Your task to perform on an android device: What's the latest news in astronomy? Image 0: 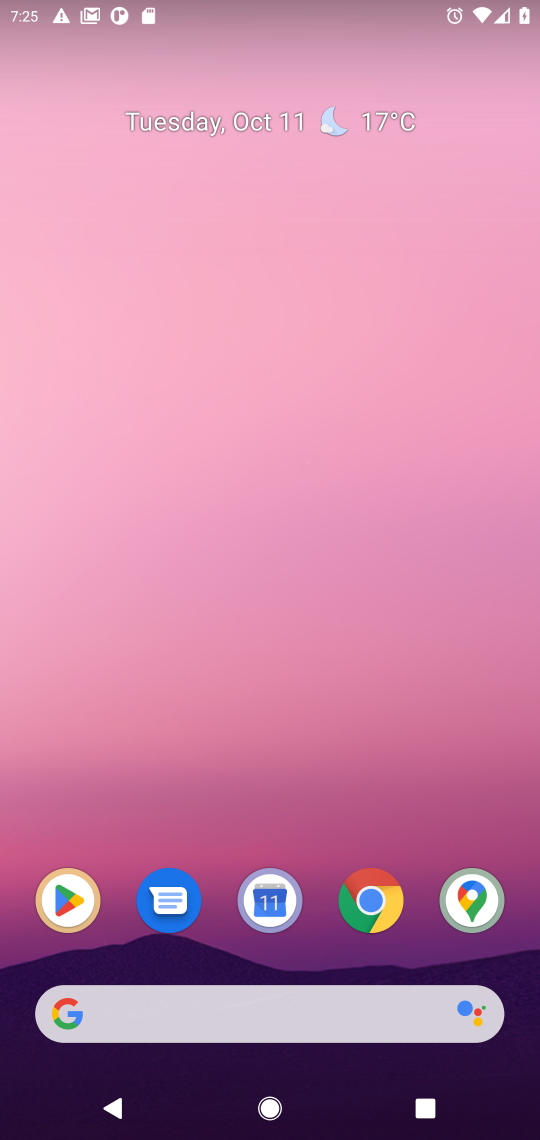
Step 0: click (360, 892)
Your task to perform on an android device: What's the latest news in astronomy? Image 1: 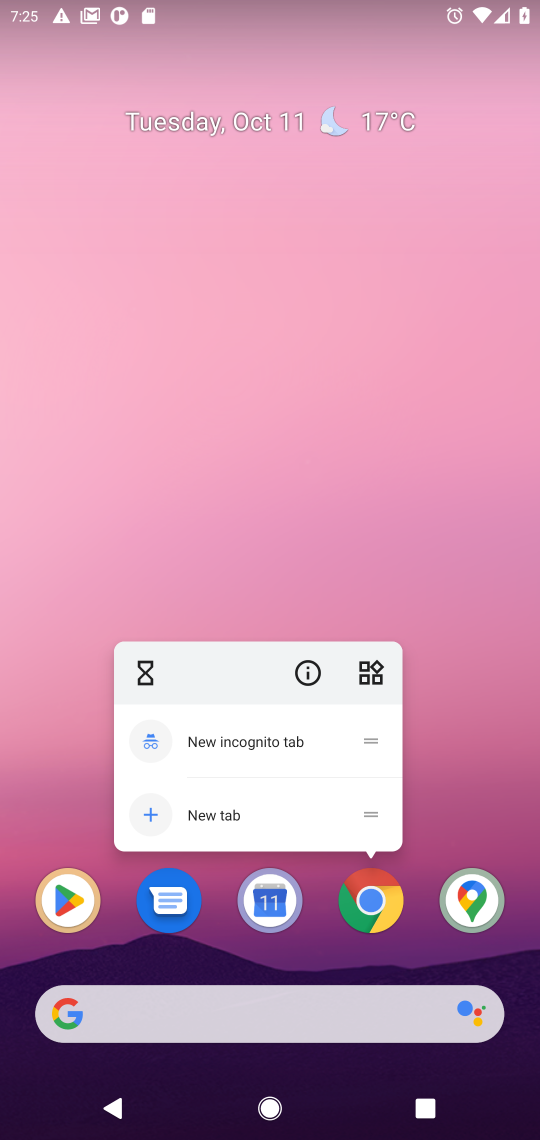
Step 1: click (359, 912)
Your task to perform on an android device: What's the latest news in astronomy? Image 2: 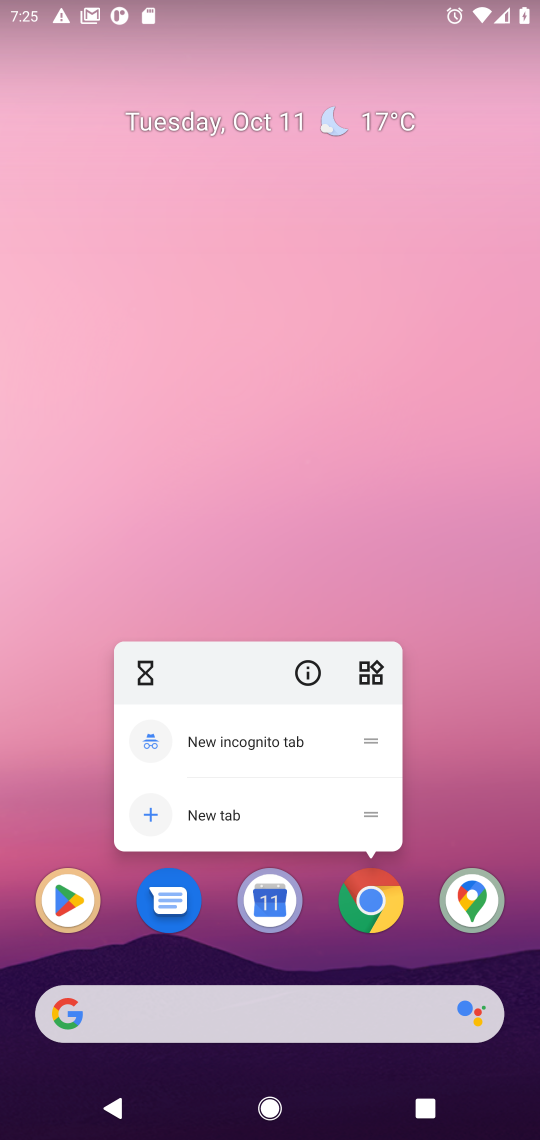
Step 2: click (371, 906)
Your task to perform on an android device: What's the latest news in astronomy? Image 3: 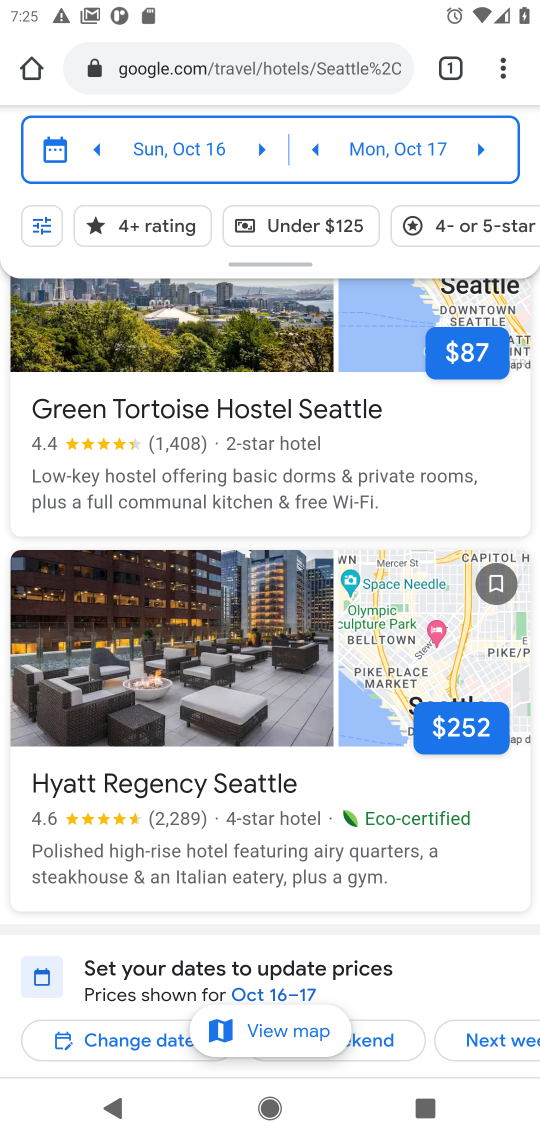
Step 3: click (277, 68)
Your task to perform on an android device: What's the latest news in astronomy? Image 4: 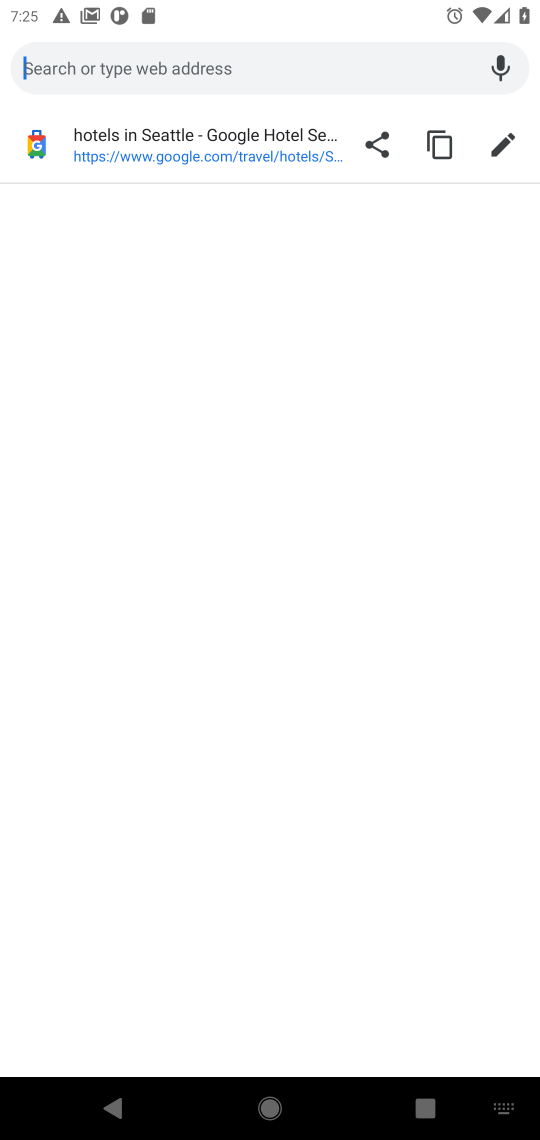
Step 4: type "news in astronomy"
Your task to perform on an android device: What's the latest news in astronomy? Image 5: 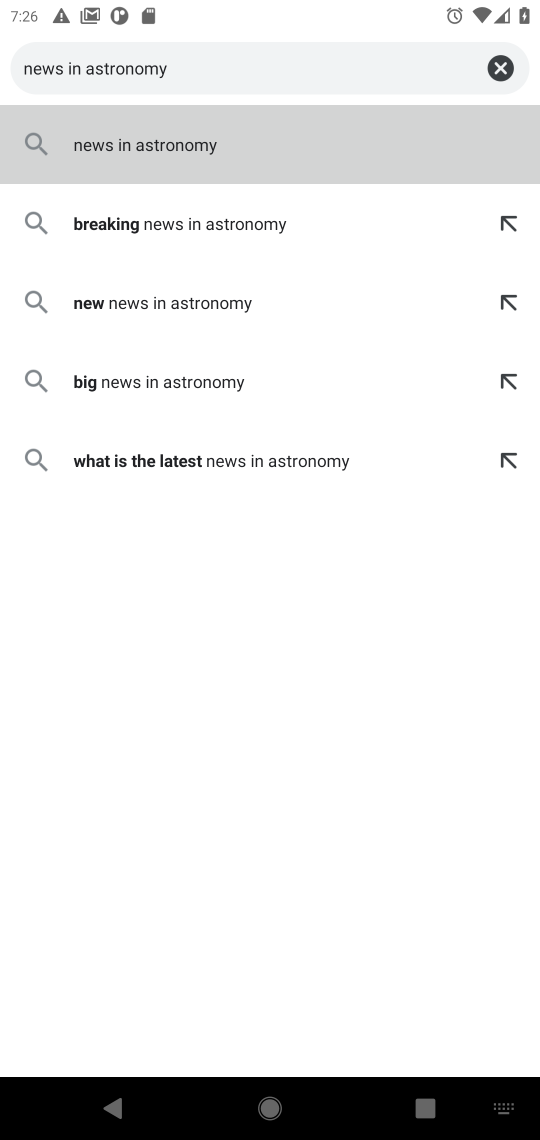
Step 5: press enter
Your task to perform on an android device: What's the latest news in astronomy? Image 6: 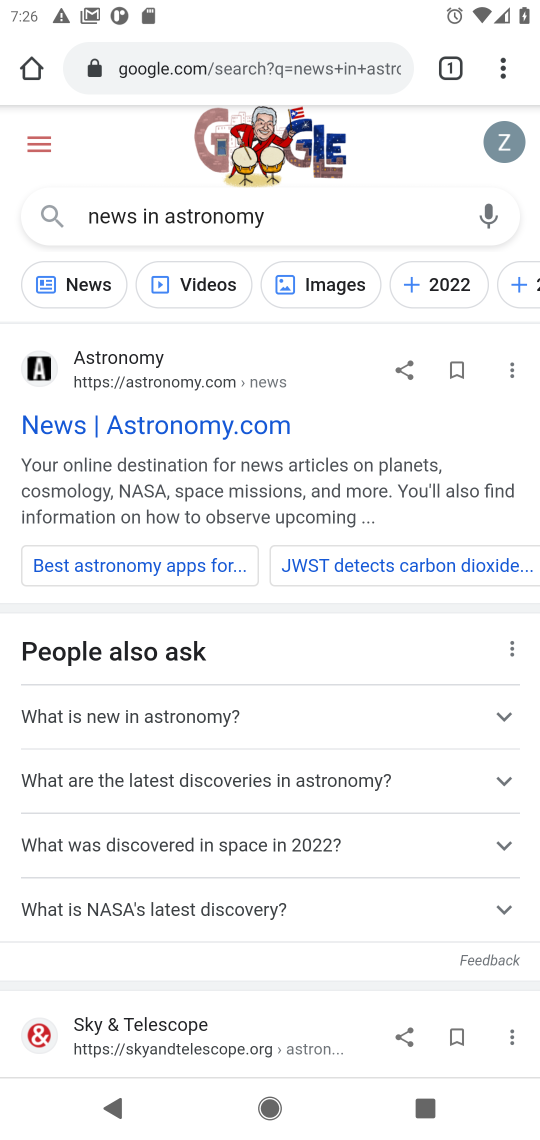
Step 6: click (77, 278)
Your task to perform on an android device: What's the latest news in astronomy? Image 7: 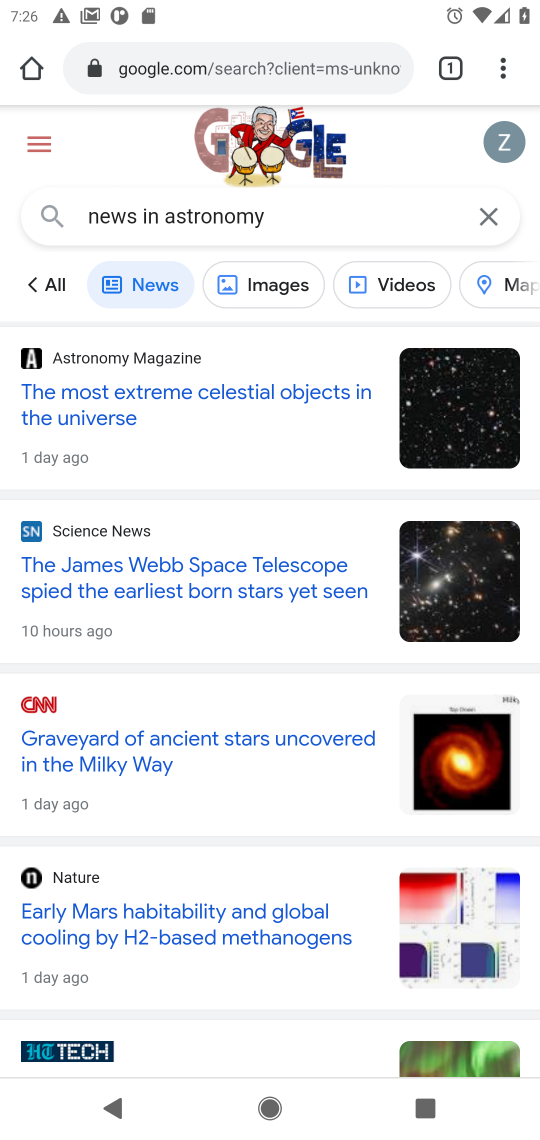
Step 7: task complete